Your task to perform on an android device: toggle priority inbox in the gmail app Image 0: 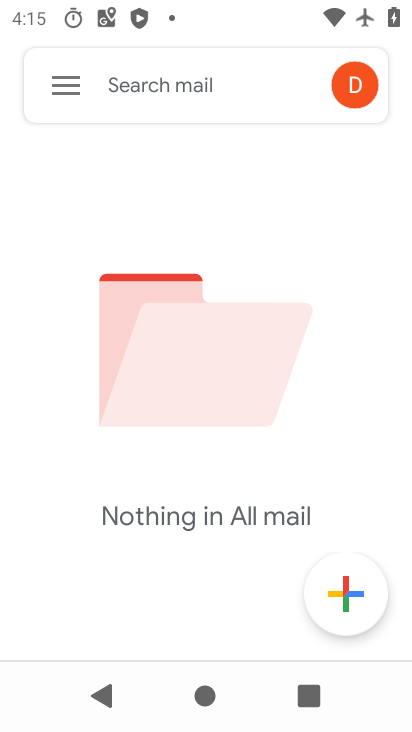
Step 0: click (65, 63)
Your task to perform on an android device: toggle priority inbox in the gmail app Image 1: 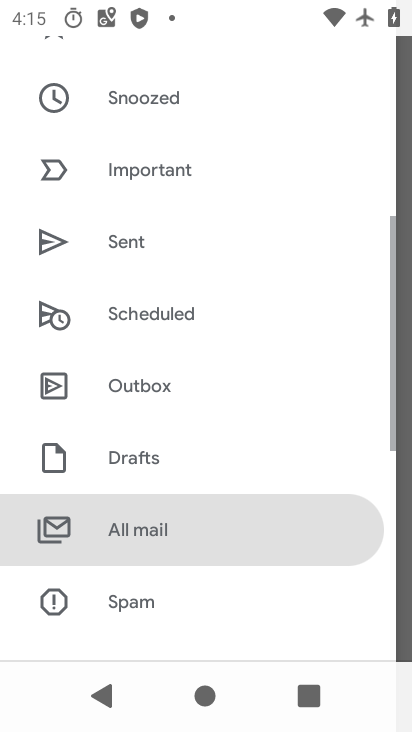
Step 1: drag from (190, 311) to (230, 44)
Your task to perform on an android device: toggle priority inbox in the gmail app Image 2: 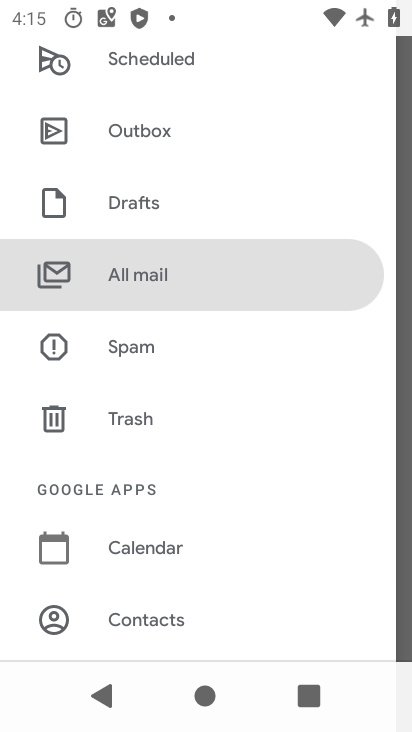
Step 2: drag from (143, 607) to (206, 120)
Your task to perform on an android device: toggle priority inbox in the gmail app Image 3: 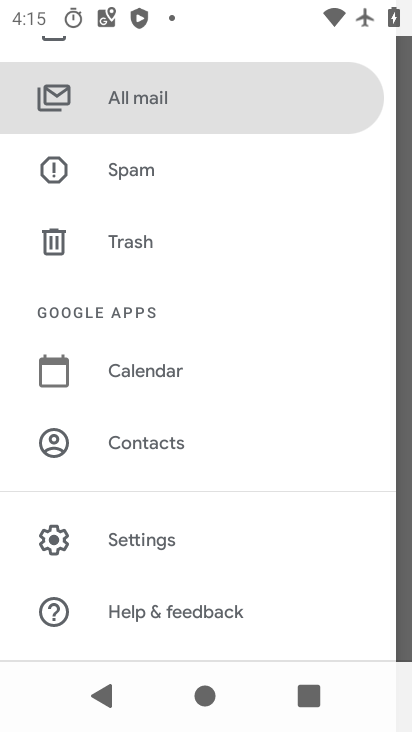
Step 3: click (139, 542)
Your task to perform on an android device: toggle priority inbox in the gmail app Image 4: 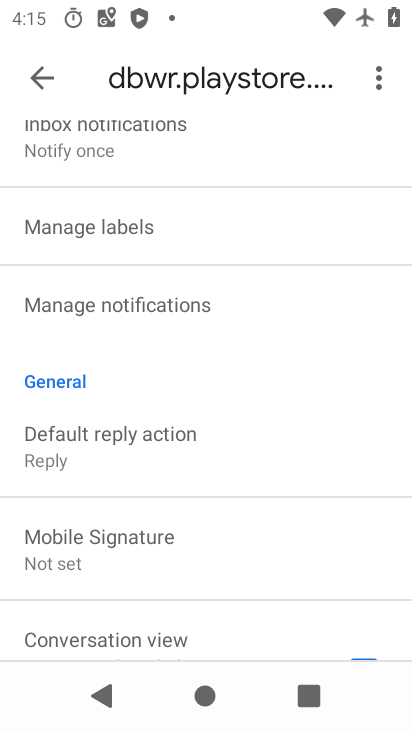
Step 4: drag from (184, 163) to (224, 570)
Your task to perform on an android device: toggle priority inbox in the gmail app Image 5: 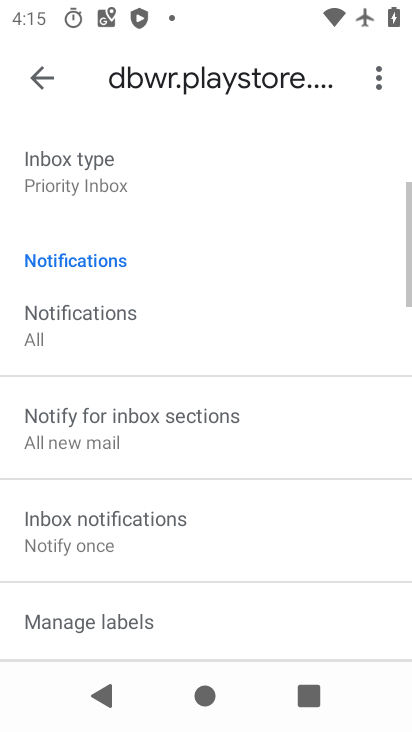
Step 5: drag from (216, 112) to (261, 485)
Your task to perform on an android device: toggle priority inbox in the gmail app Image 6: 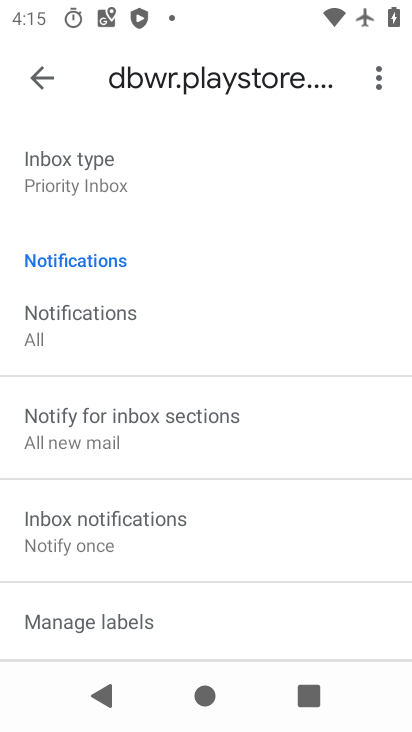
Step 6: click (124, 172)
Your task to perform on an android device: toggle priority inbox in the gmail app Image 7: 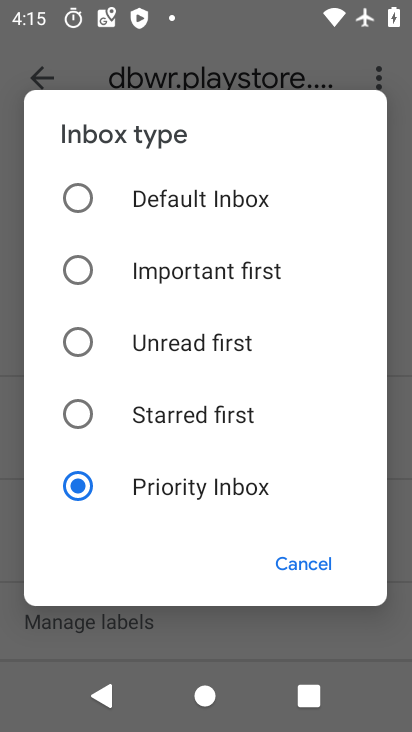
Step 7: click (152, 206)
Your task to perform on an android device: toggle priority inbox in the gmail app Image 8: 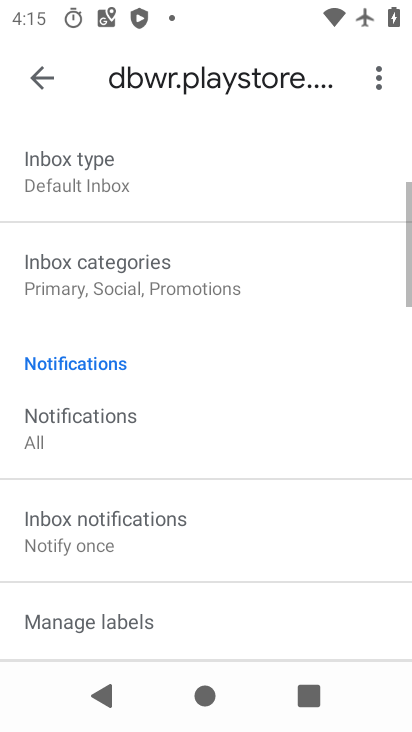
Step 8: task complete